Your task to perform on an android device: set default search engine in the chrome app Image 0: 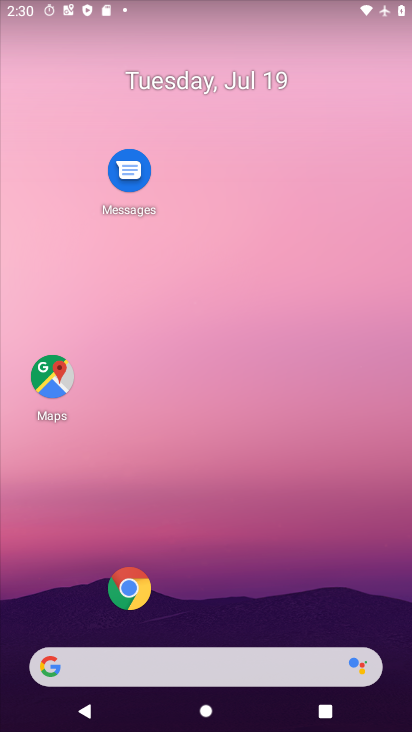
Step 0: click (148, 594)
Your task to perform on an android device: set default search engine in the chrome app Image 1: 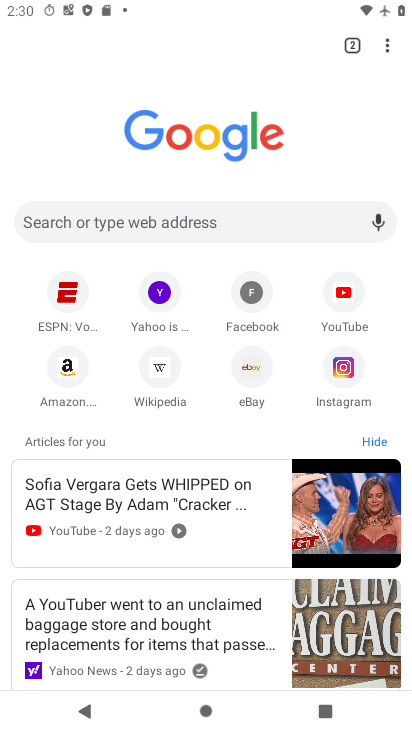
Step 1: click (387, 46)
Your task to perform on an android device: set default search engine in the chrome app Image 2: 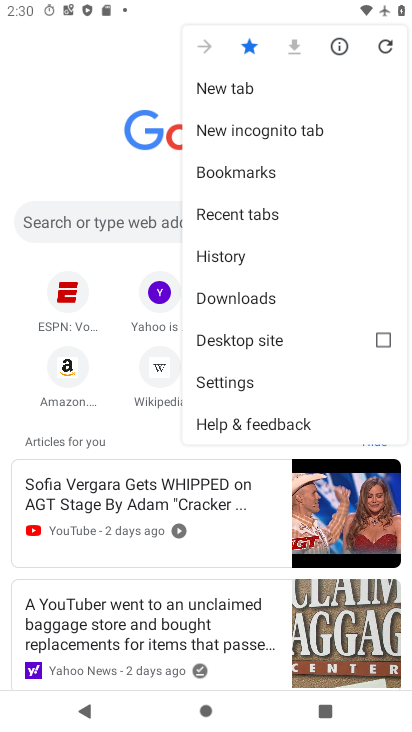
Step 2: click (231, 391)
Your task to perform on an android device: set default search engine in the chrome app Image 3: 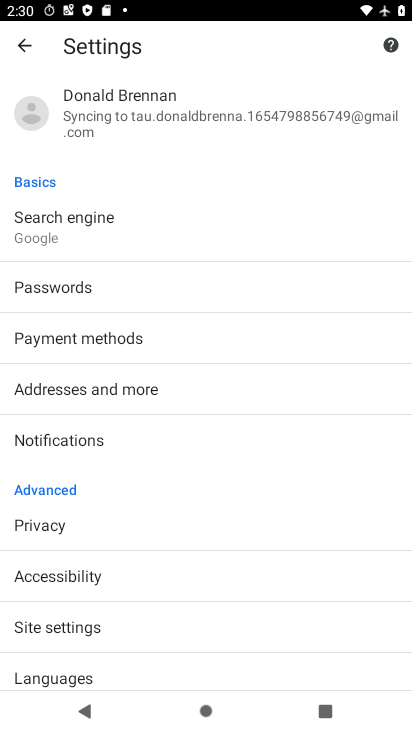
Step 3: click (110, 228)
Your task to perform on an android device: set default search engine in the chrome app Image 4: 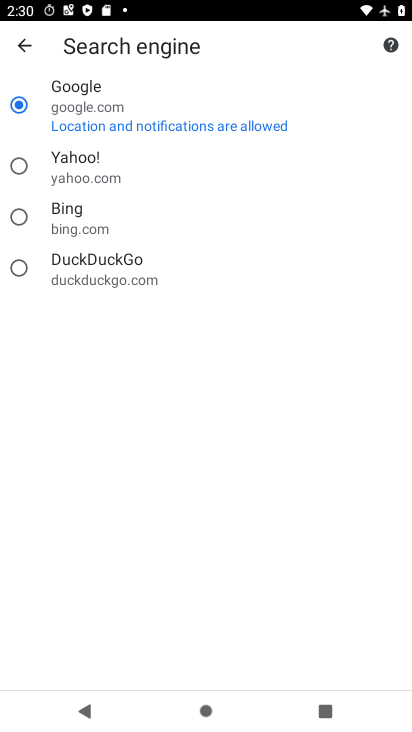
Step 4: task complete